Your task to perform on an android device: Open Google Maps Image 0: 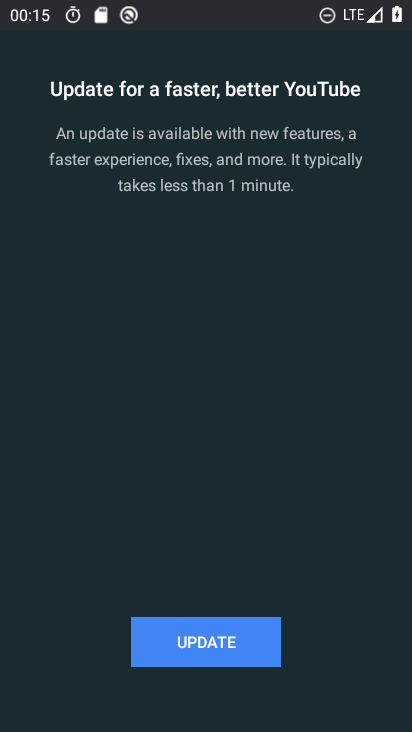
Step 0: press home button
Your task to perform on an android device: Open Google Maps Image 1: 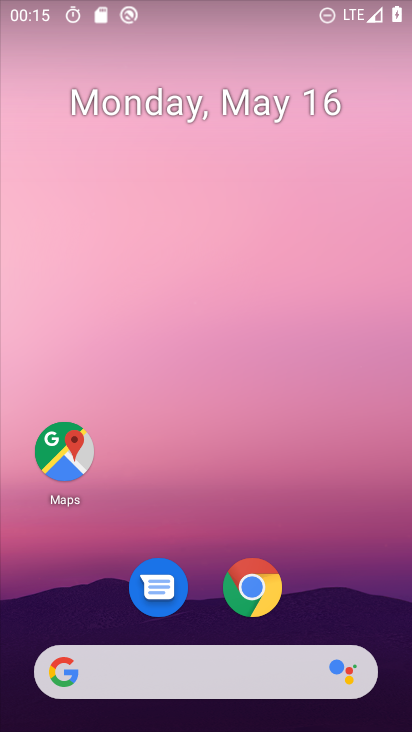
Step 1: click (63, 465)
Your task to perform on an android device: Open Google Maps Image 2: 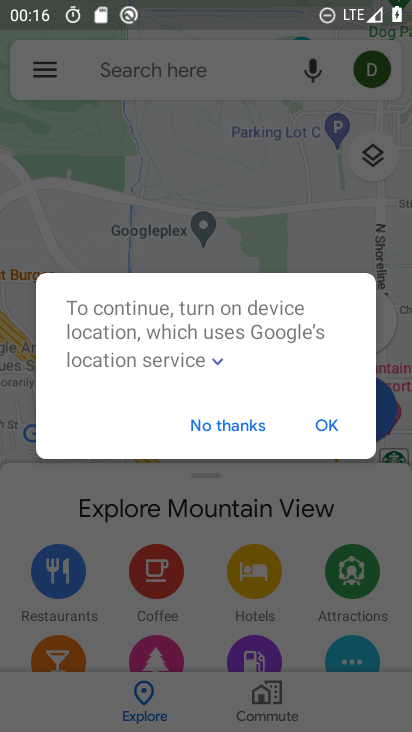
Step 2: press home button
Your task to perform on an android device: Open Google Maps Image 3: 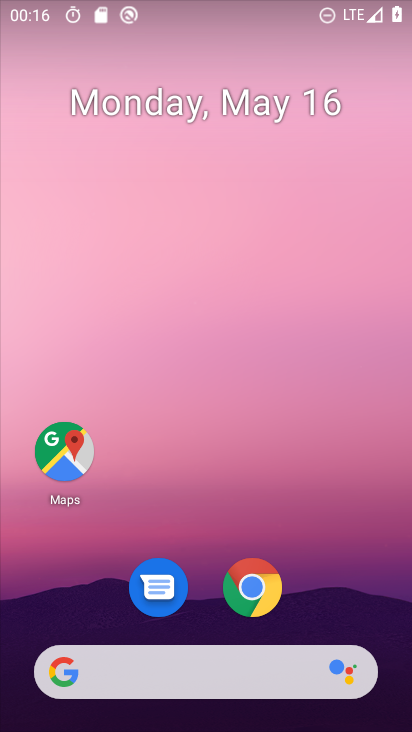
Step 3: click (79, 442)
Your task to perform on an android device: Open Google Maps Image 4: 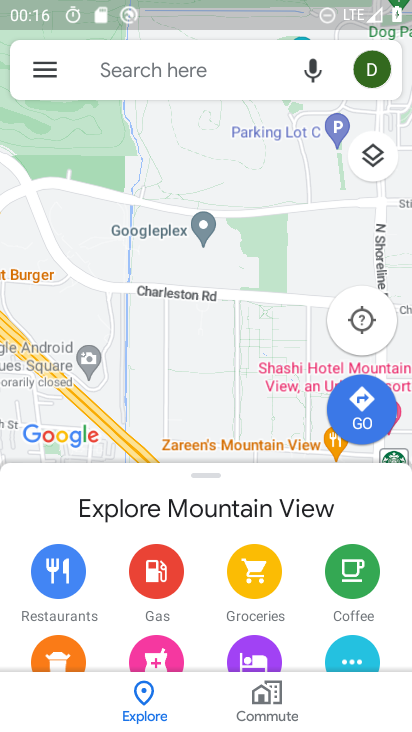
Step 4: task complete